Your task to perform on an android device: Open Google Chrome and open the bookmarks view Image 0: 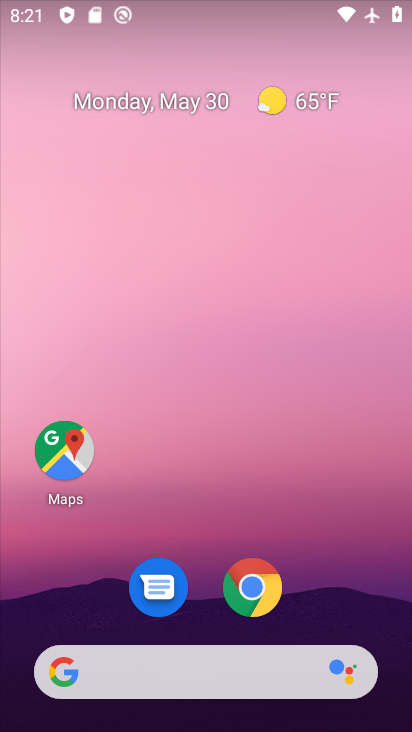
Step 0: click (252, 589)
Your task to perform on an android device: Open Google Chrome and open the bookmarks view Image 1: 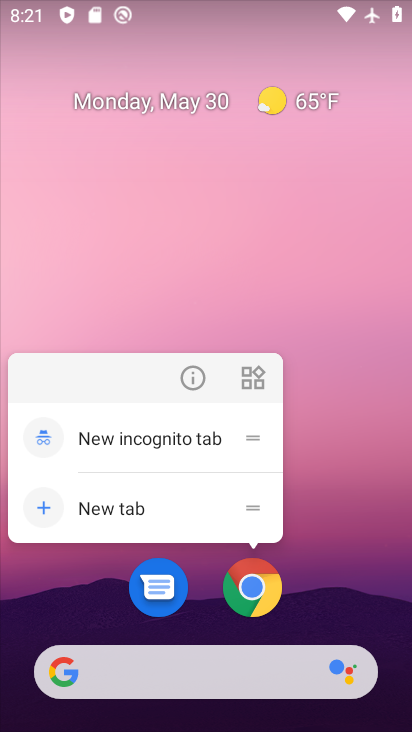
Step 1: click (257, 586)
Your task to perform on an android device: Open Google Chrome and open the bookmarks view Image 2: 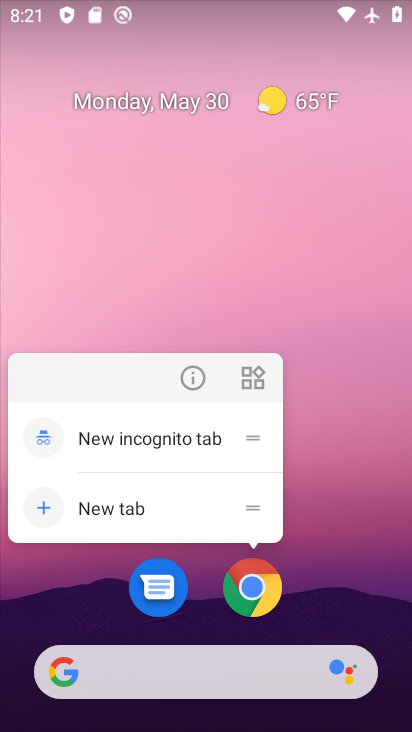
Step 2: click (255, 595)
Your task to perform on an android device: Open Google Chrome and open the bookmarks view Image 3: 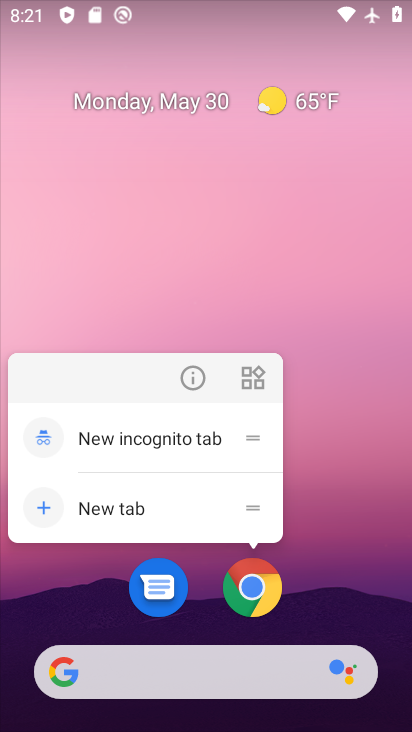
Step 3: click (255, 595)
Your task to perform on an android device: Open Google Chrome and open the bookmarks view Image 4: 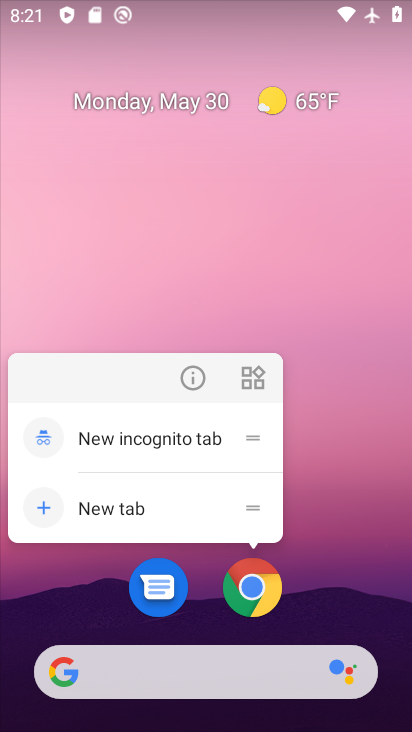
Step 4: click (255, 595)
Your task to perform on an android device: Open Google Chrome and open the bookmarks view Image 5: 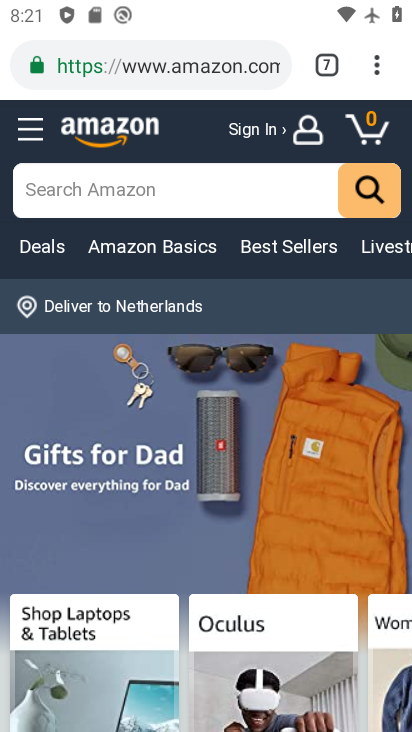
Step 5: task complete